Your task to perform on an android device: turn on notifications settings in the gmail app Image 0: 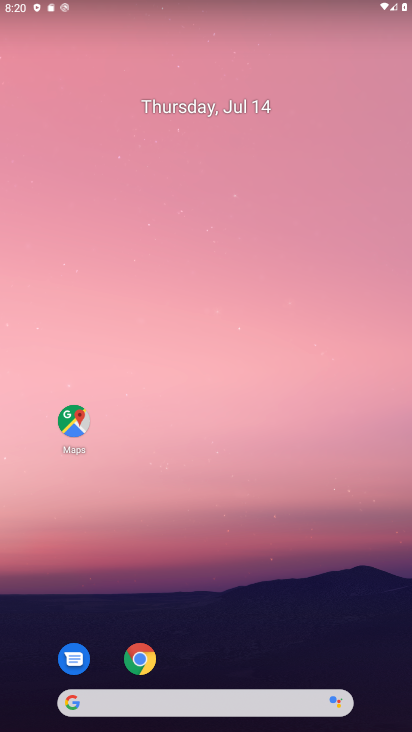
Step 0: drag from (217, 655) to (183, 371)
Your task to perform on an android device: turn on notifications settings in the gmail app Image 1: 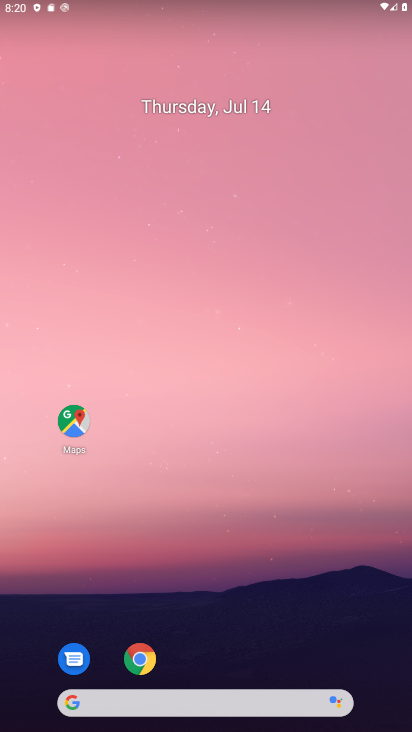
Step 1: drag from (220, 628) to (179, 213)
Your task to perform on an android device: turn on notifications settings in the gmail app Image 2: 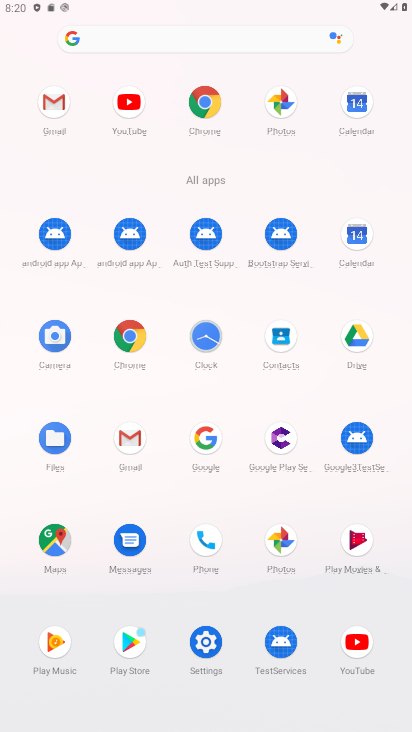
Step 2: click (124, 445)
Your task to perform on an android device: turn on notifications settings in the gmail app Image 3: 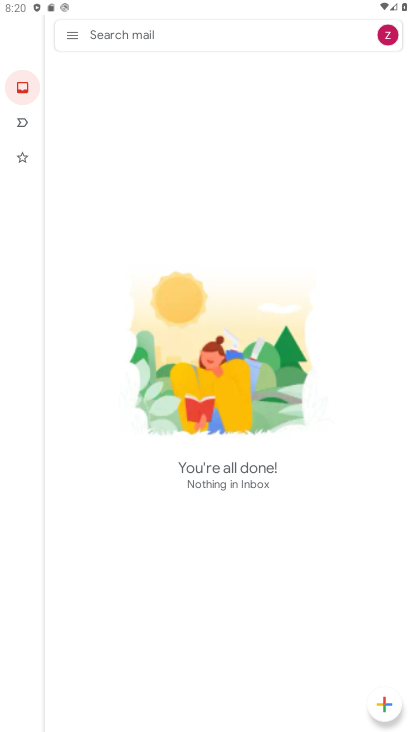
Step 3: click (69, 33)
Your task to perform on an android device: turn on notifications settings in the gmail app Image 4: 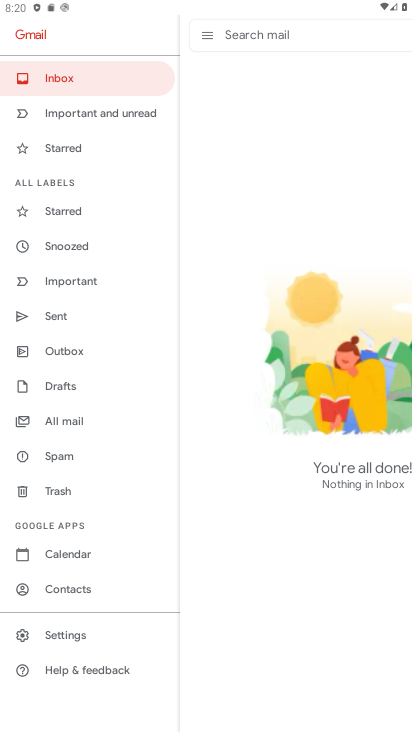
Step 4: click (77, 631)
Your task to perform on an android device: turn on notifications settings in the gmail app Image 5: 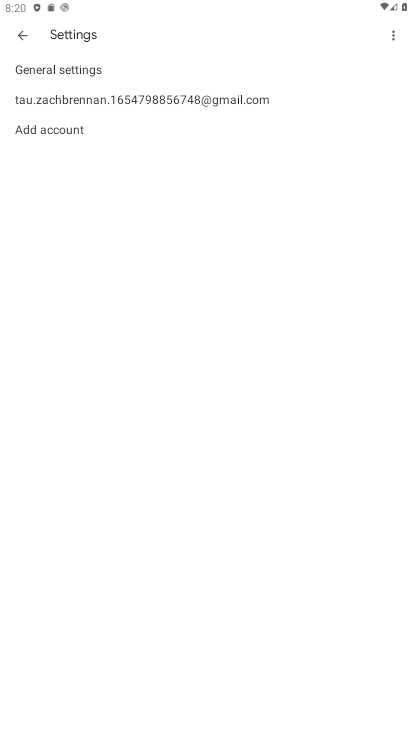
Step 5: click (61, 79)
Your task to perform on an android device: turn on notifications settings in the gmail app Image 6: 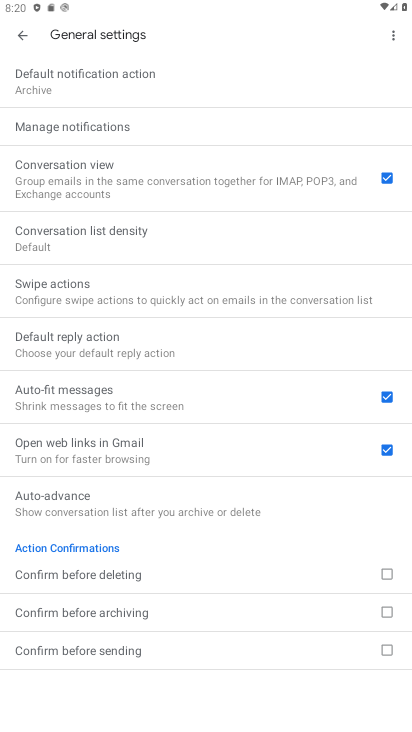
Step 6: click (60, 113)
Your task to perform on an android device: turn on notifications settings in the gmail app Image 7: 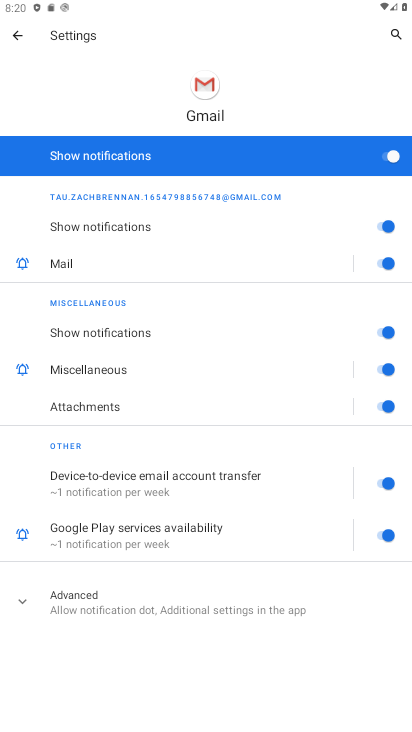
Step 7: task complete